Your task to perform on an android device: Add "alienware area 51" to the cart on newegg.com Image 0: 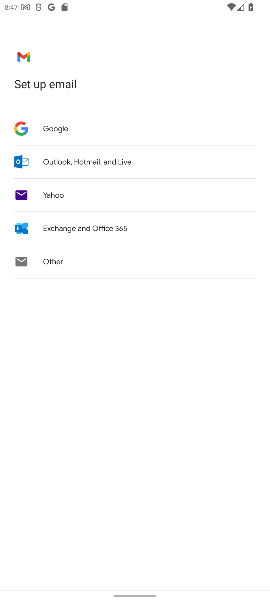
Step 0: press home button
Your task to perform on an android device: Add "alienware area 51" to the cart on newegg.com Image 1: 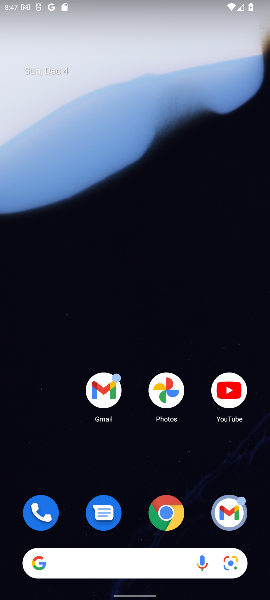
Step 1: click (166, 513)
Your task to perform on an android device: Add "alienware area 51" to the cart on newegg.com Image 2: 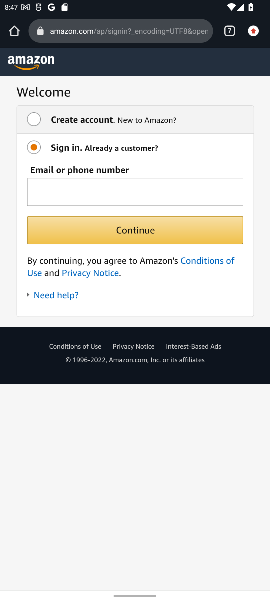
Step 2: press back button
Your task to perform on an android device: Add "alienware area 51" to the cart on newegg.com Image 3: 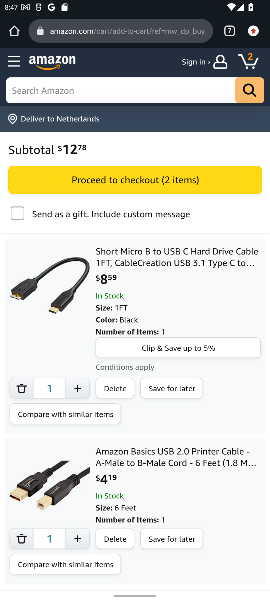
Step 3: click (142, 82)
Your task to perform on an android device: Add "alienware area 51" to the cart on newegg.com Image 4: 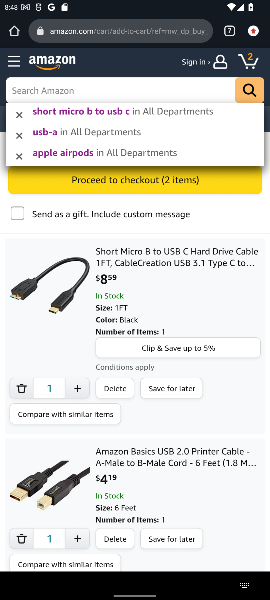
Step 4: type "alienware area 51"
Your task to perform on an android device: Add "alienware area 51" to the cart on newegg.com Image 5: 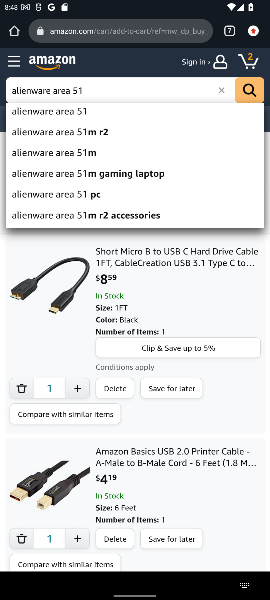
Step 5: click (245, 92)
Your task to perform on an android device: Add "alienware area 51" to the cart on newegg.com Image 6: 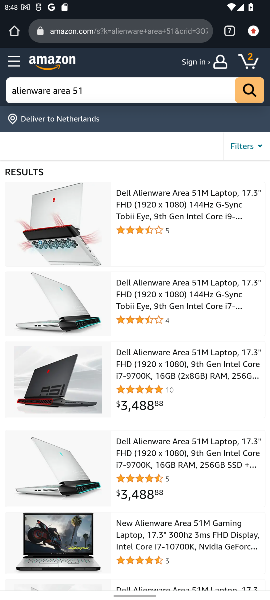
Step 6: click (153, 207)
Your task to perform on an android device: Add "alienware area 51" to the cart on newegg.com Image 7: 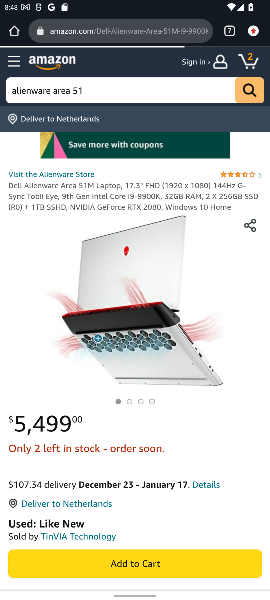
Step 7: click (143, 558)
Your task to perform on an android device: Add "alienware area 51" to the cart on newegg.com Image 8: 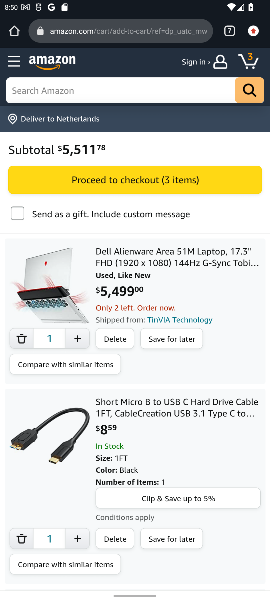
Step 8: task complete